Your task to perform on an android device: turn off location history Image 0: 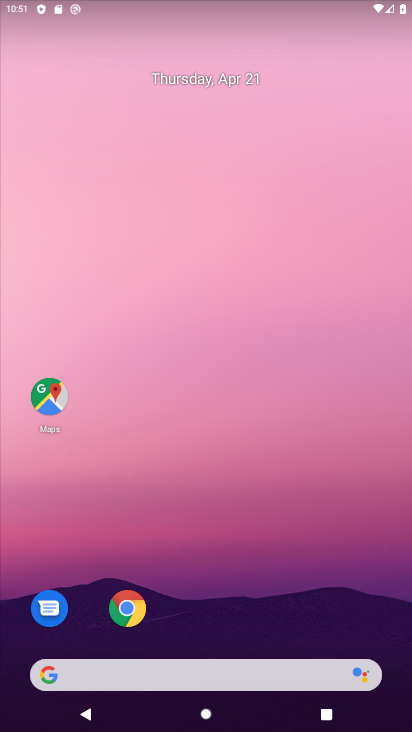
Step 0: press home button
Your task to perform on an android device: turn off location history Image 1: 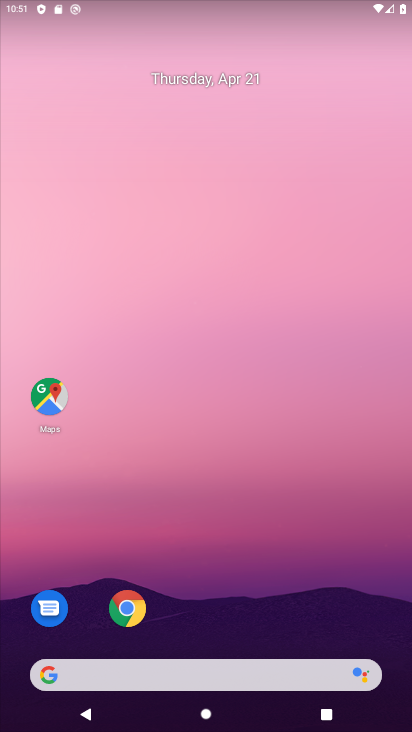
Step 1: drag from (212, 614) to (230, 195)
Your task to perform on an android device: turn off location history Image 2: 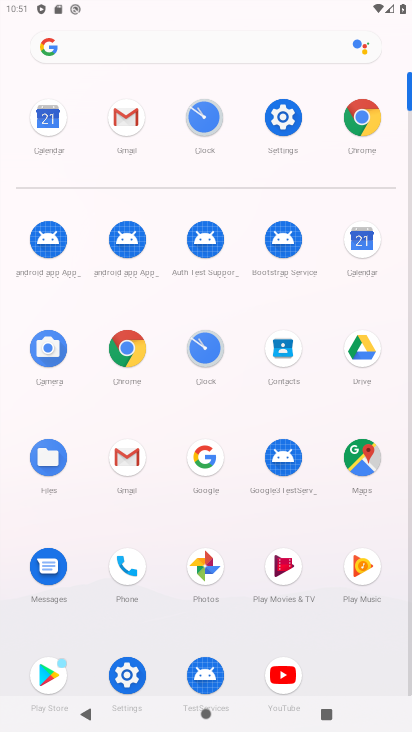
Step 2: click (281, 121)
Your task to perform on an android device: turn off location history Image 3: 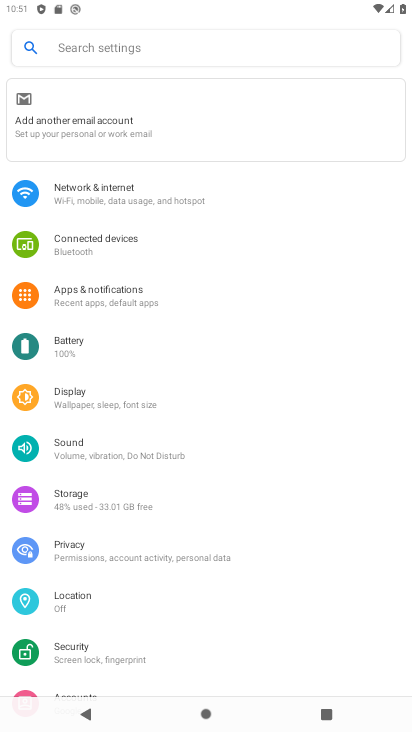
Step 3: click (68, 602)
Your task to perform on an android device: turn off location history Image 4: 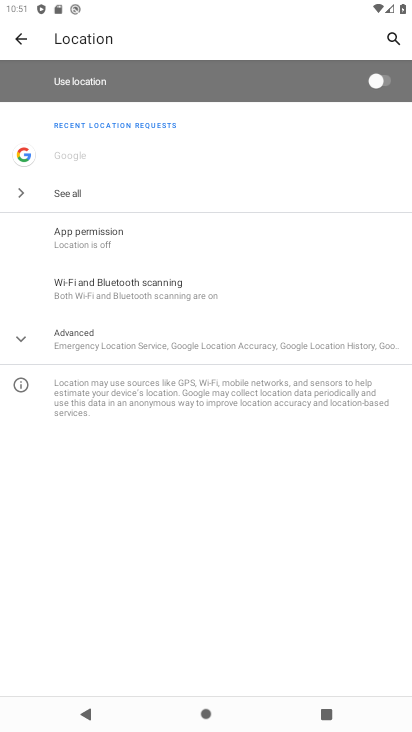
Step 4: click (64, 350)
Your task to perform on an android device: turn off location history Image 5: 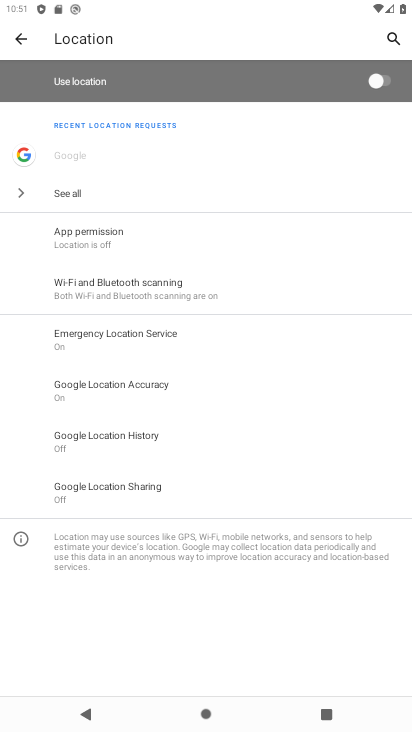
Step 5: task complete